Your task to perform on an android device: Turn off the flashlight Image 0: 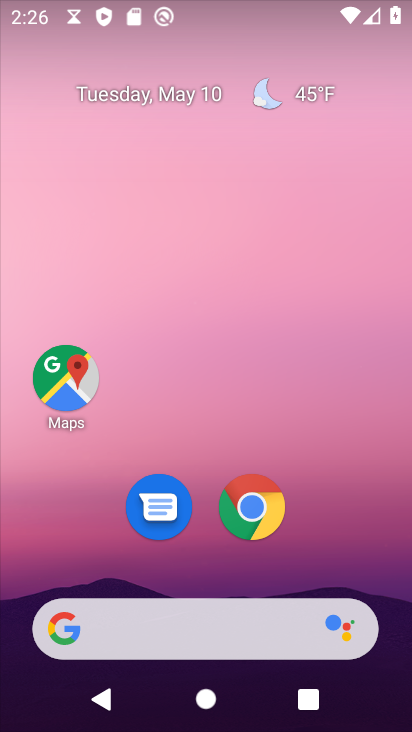
Step 0: drag from (326, 472) to (203, 120)
Your task to perform on an android device: Turn off the flashlight Image 1: 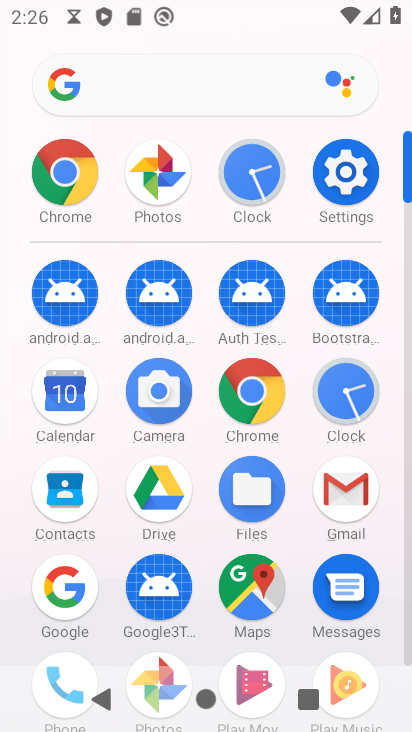
Step 1: click (344, 163)
Your task to perform on an android device: Turn off the flashlight Image 2: 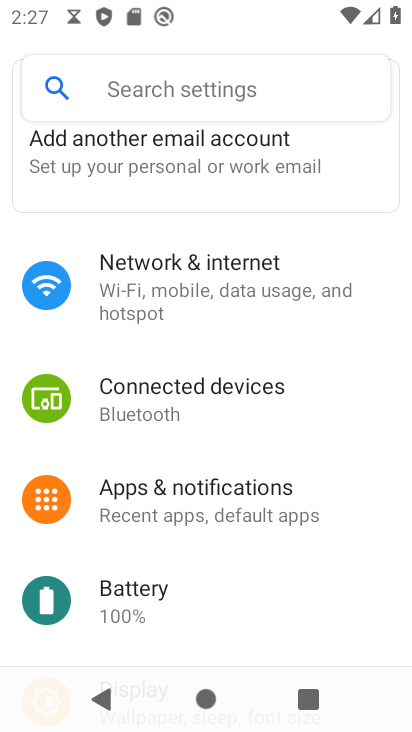
Step 2: click (193, 92)
Your task to perform on an android device: Turn off the flashlight Image 3: 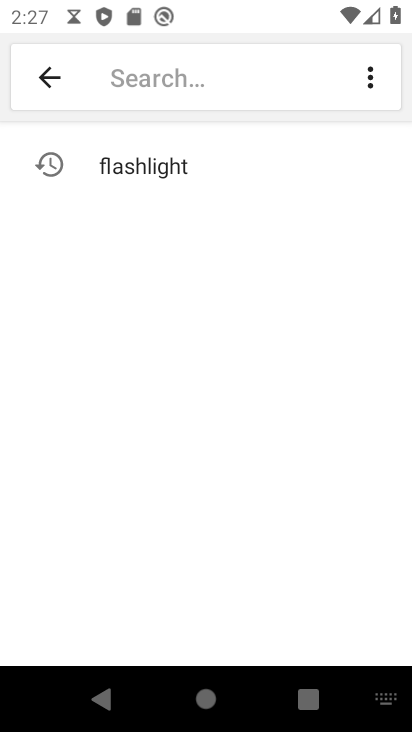
Step 3: click (152, 162)
Your task to perform on an android device: Turn off the flashlight Image 4: 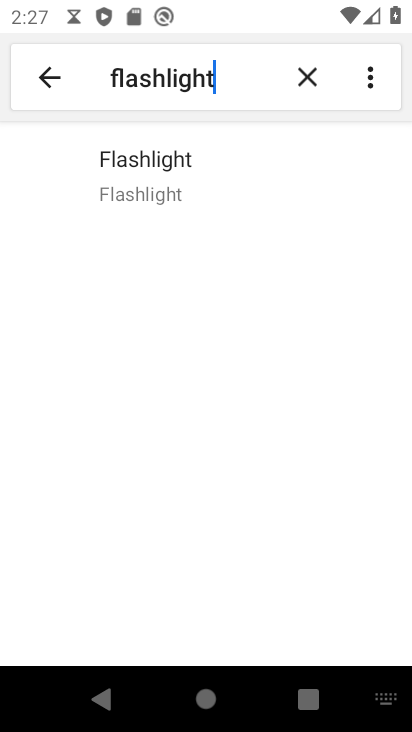
Step 4: click (172, 169)
Your task to perform on an android device: Turn off the flashlight Image 5: 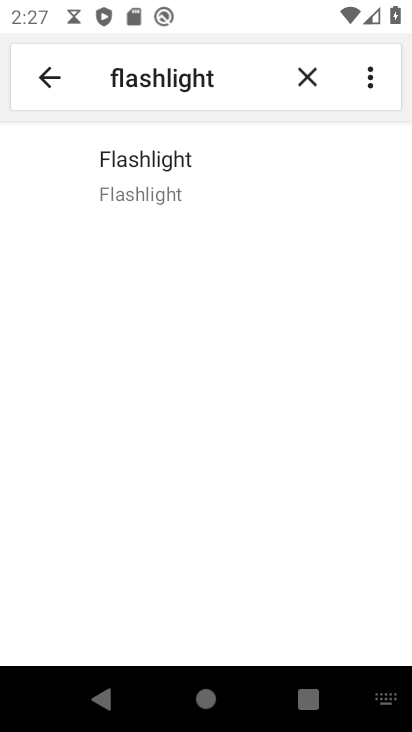
Step 5: click (167, 168)
Your task to perform on an android device: Turn off the flashlight Image 6: 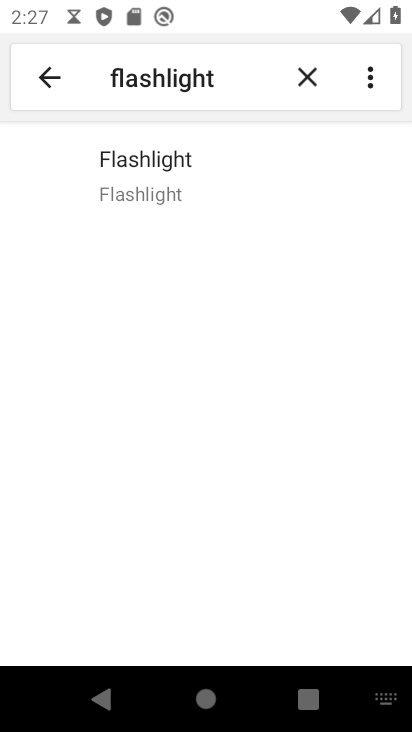
Step 6: task complete